Your task to perform on an android device: check out phone information Image 0: 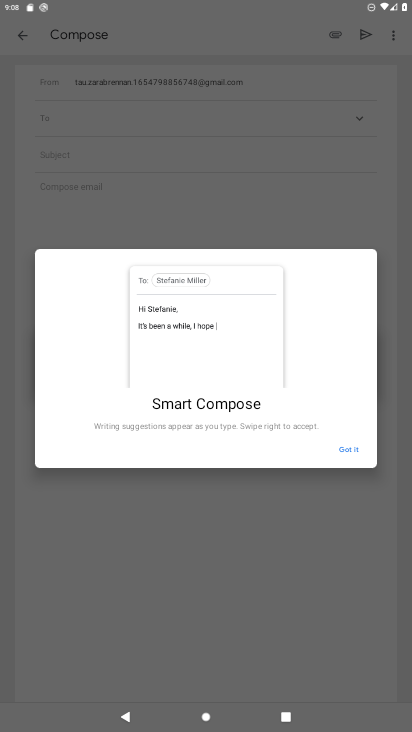
Step 0: press home button
Your task to perform on an android device: check out phone information Image 1: 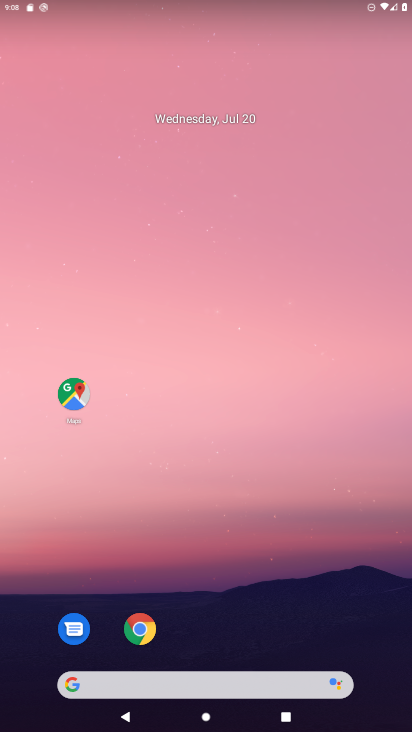
Step 1: drag from (374, 657) to (315, 124)
Your task to perform on an android device: check out phone information Image 2: 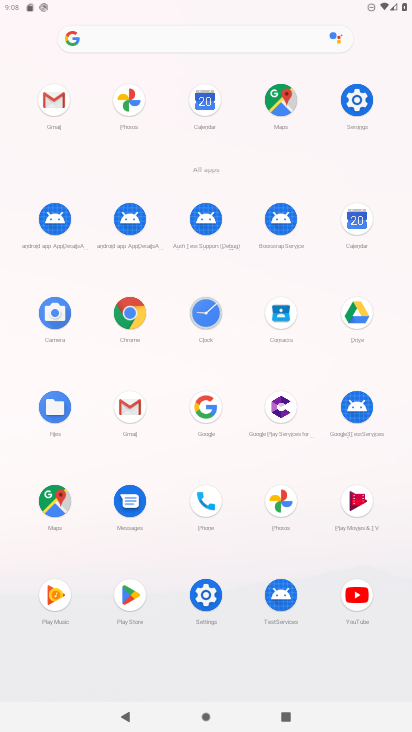
Step 2: click (206, 596)
Your task to perform on an android device: check out phone information Image 3: 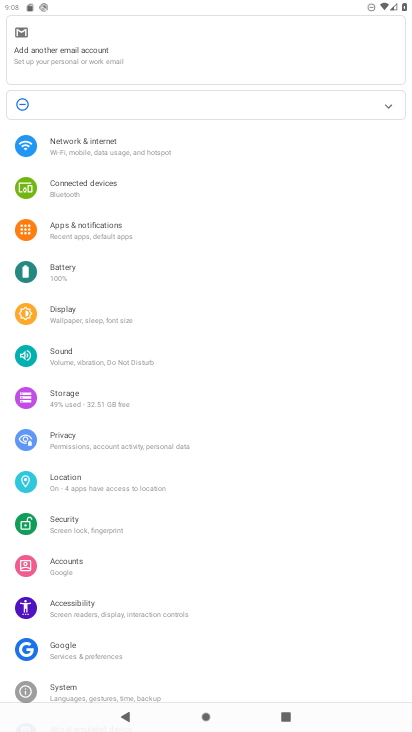
Step 3: drag from (222, 660) to (237, 393)
Your task to perform on an android device: check out phone information Image 4: 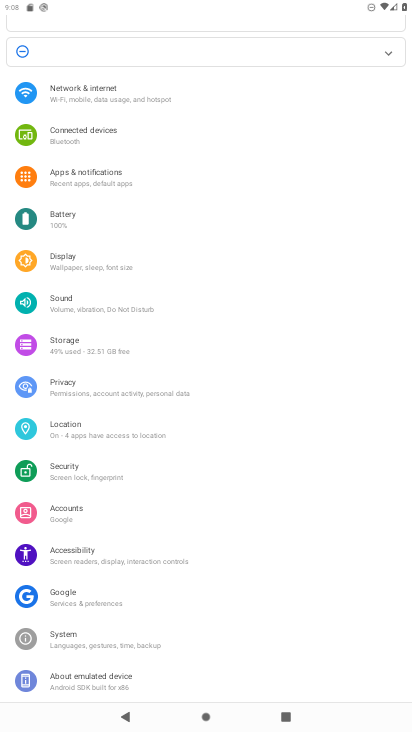
Step 4: click (80, 675)
Your task to perform on an android device: check out phone information Image 5: 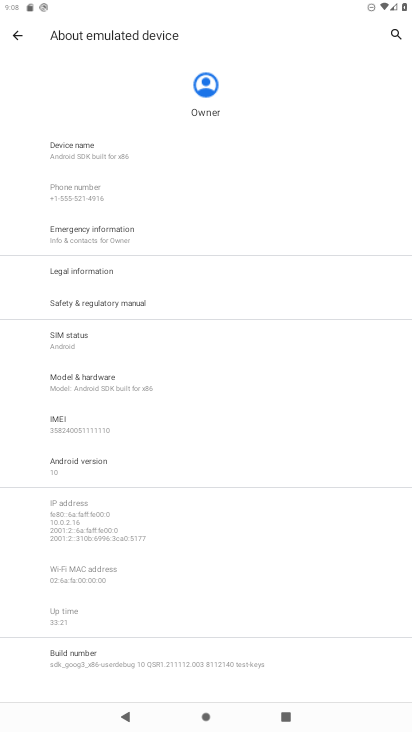
Step 5: task complete